Your task to perform on an android device: read, delete, or share a saved page in the chrome app Image 0: 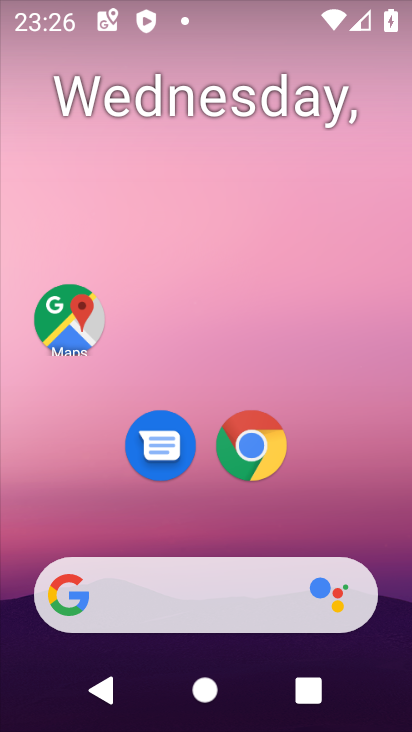
Step 0: click (261, 429)
Your task to perform on an android device: read, delete, or share a saved page in the chrome app Image 1: 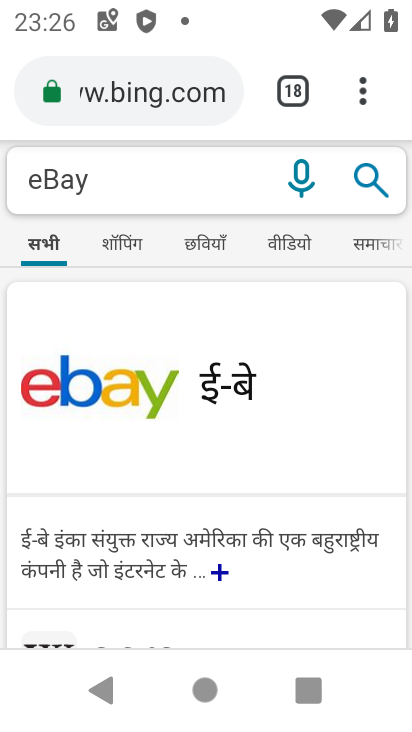
Step 1: click (376, 86)
Your task to perform on an android device: read, delete, or share a saved page in the chrome app Image 2: 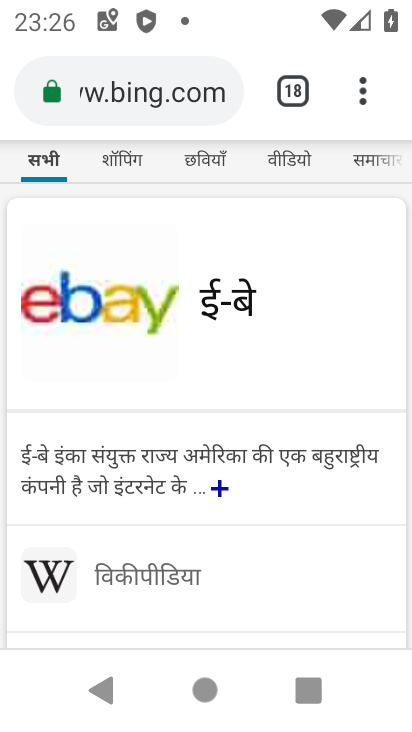
Step 2: click (373, 77)
Your task to perform on an android device: read, delete, or share a saved page in the chrome app Image 3: 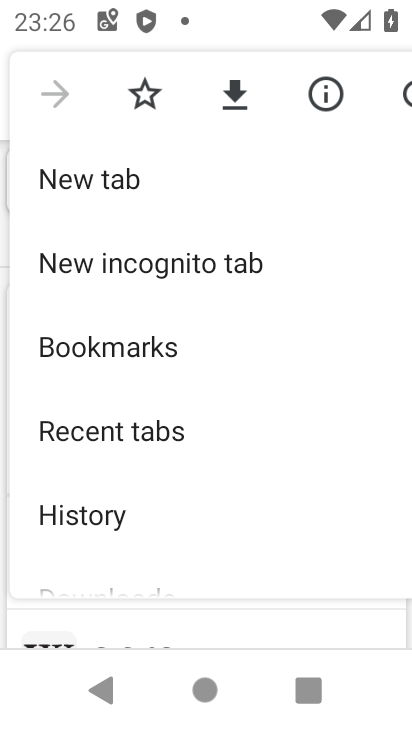
Step 3: drag from (169, 557) to (225, 288)
Your task to perform on an android device: read, delete, or share a saved page in the chrome app Image 4: 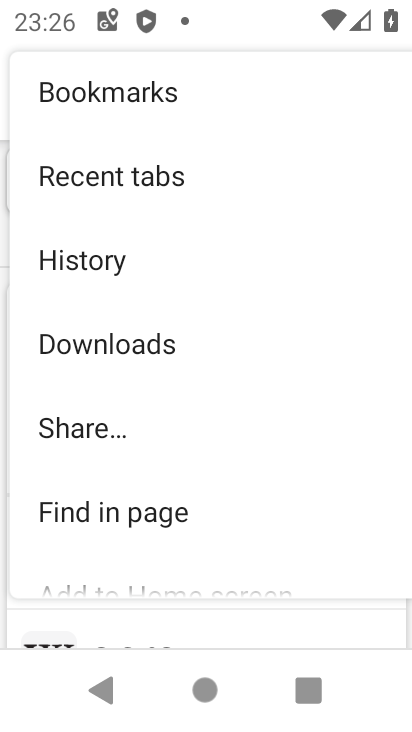
Step 4: click (149, 347)
Your task to perform on an android device: read, delete, or share a saved page in the chrome app Image 5: 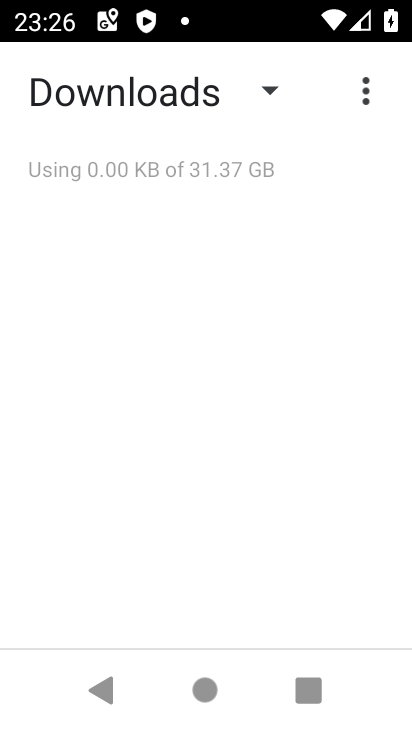
Step 5: click (279, 75)
Your task to perform on an android device: read, delete, or share a saved page in the chrome app Image 6: 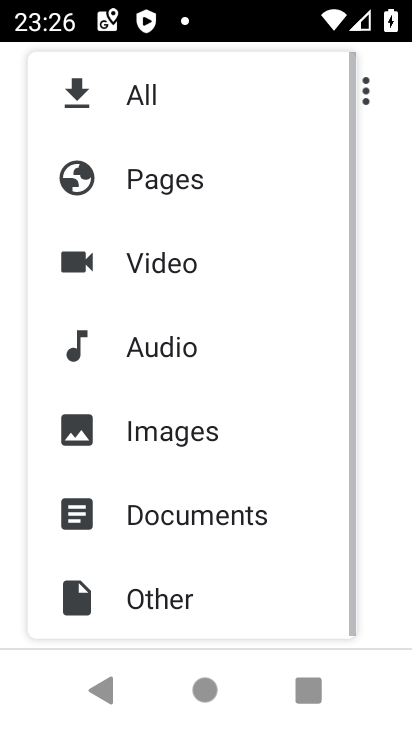
Step 6: click (126, 168)
Your task to perform on an android device: read, delete, or share a saved page in the chrome app Image 7: 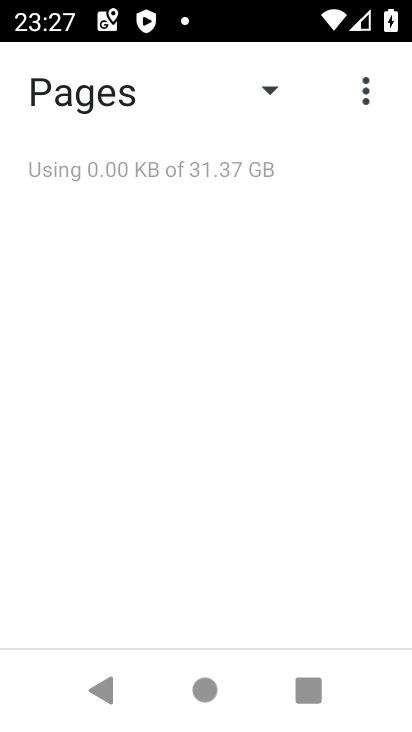
Step 7: task complete